Your task to perform on an android device: Open battery settings Image 0: 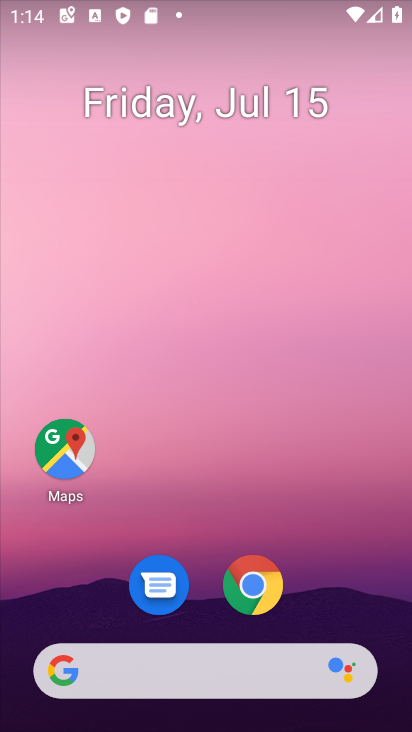
Step 0: drag from (339, 550) to (313, 32)
Your task to perform on an android device: Open battery settings Image 1: 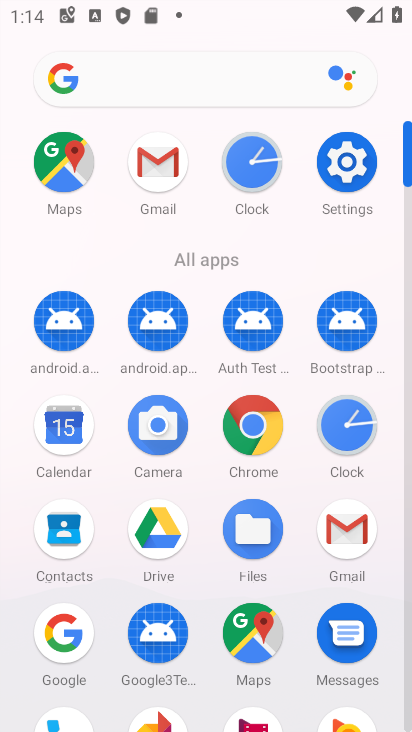
Step 1: click (346, 165)
Your task to perform on an android device: Open battery settings Image 2: 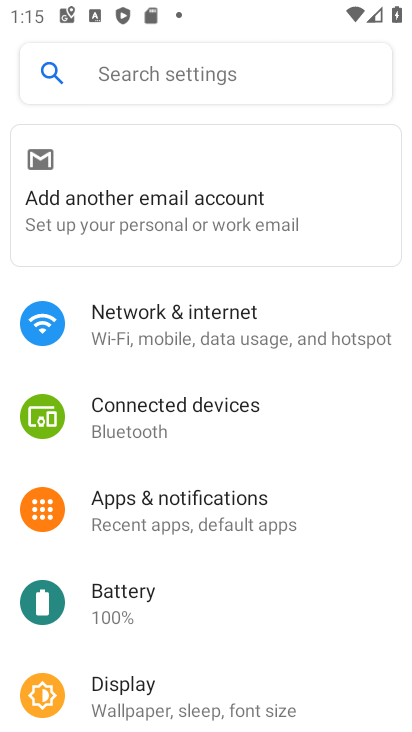
Step 2: click (140, 589)
Your task to perform on an android device: Open battery settings Image 3: 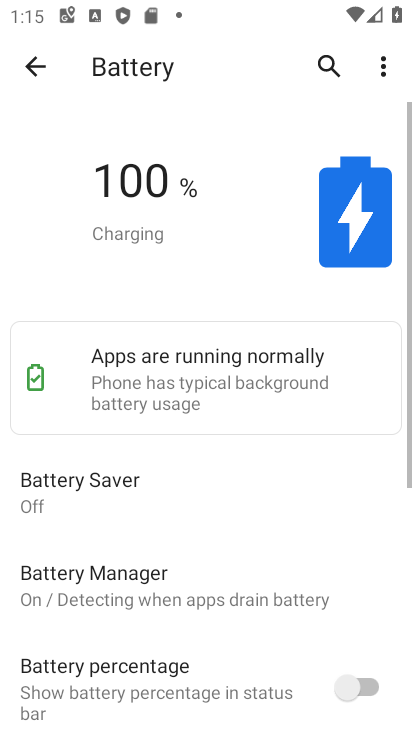
Step 3: task complete